Your task to perform on an android device: Go to ESPN.com Image 0: 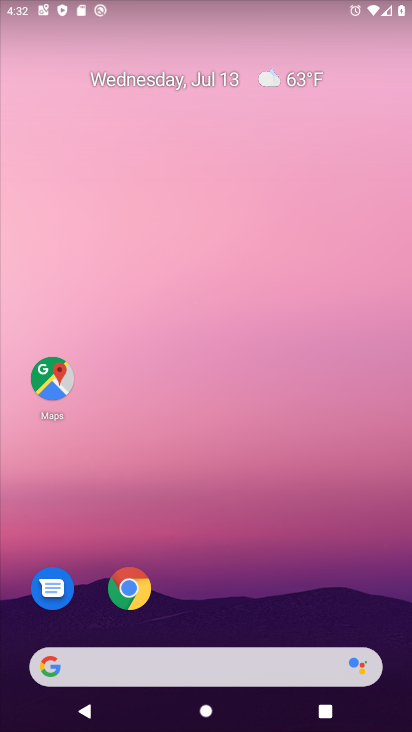
Step 0: click (130, 589)
Your task to perform on an android device: Go to ESPN.com Image 1: 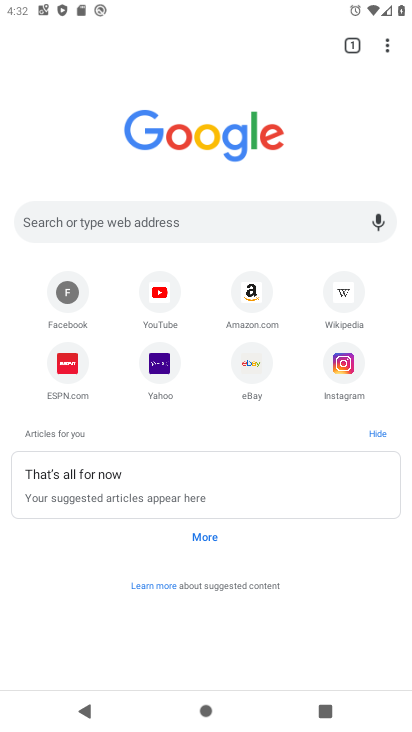
Step 1: click (70, 364)
Your task to perform on an android device: Go to ESPN.com Image 2: 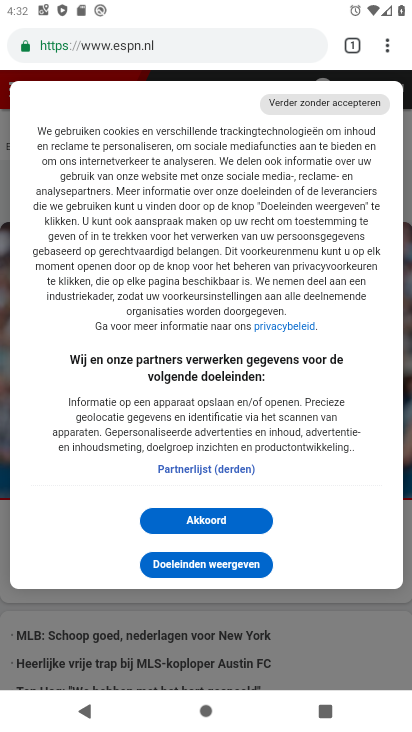
Step 2: click (240, 517)
Your task to perform on an android device: Go to ESPN.com Image 3: 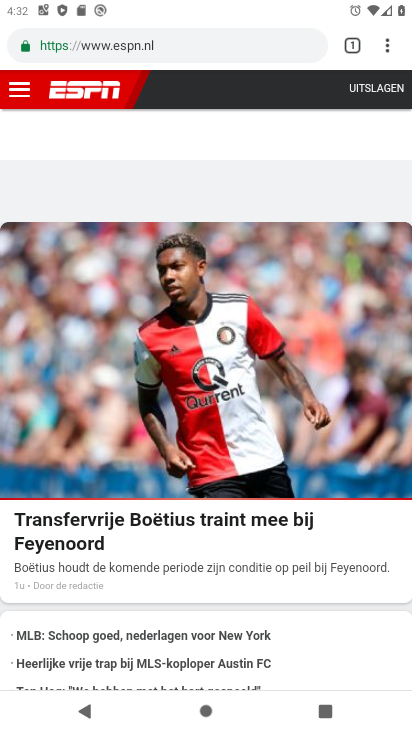
Step 3: task complete